Your task to perform on an android device: turn on data saver in the chrome app Image 0: 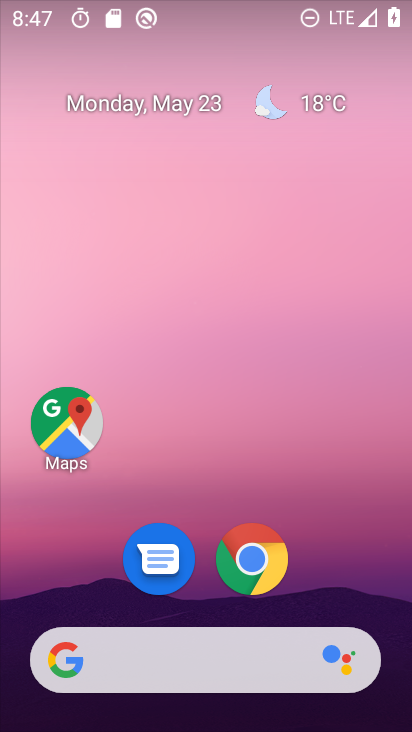
Step 0: drag from (394, 621) to (196, 16)
Your task to perform on an android device: turn on data saver in the chrome app Image 1: 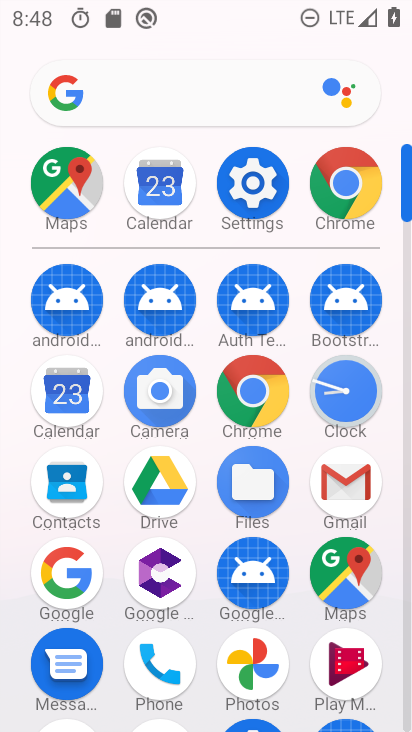
Step 1: click (243, 392)
Your task to perform on an android device: turn on data saver in the chrome app Image 2: 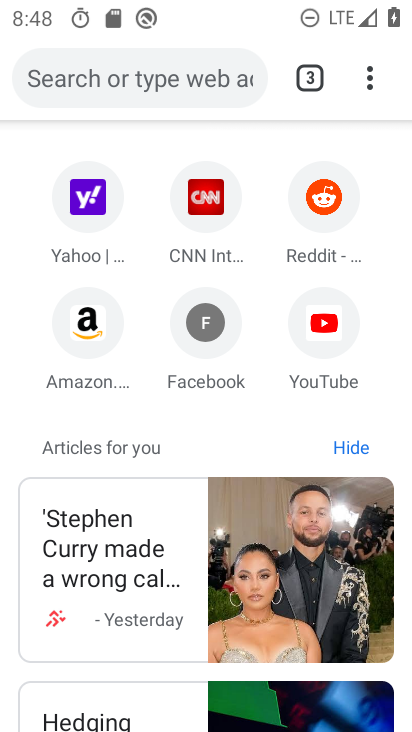
Step 2: click (370, 72)
Your task to perform on an android device: turn on data saver in the chrome app Image 3: 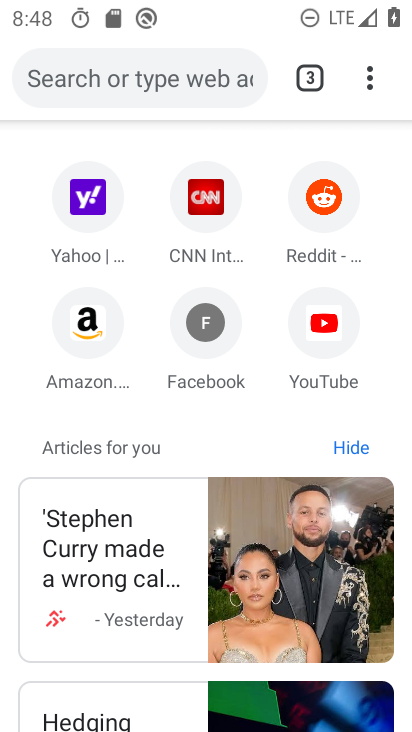
Step 3: click (370, 72)
Your task to perform on an android device: turn on data saver in the chrome app Image 4: 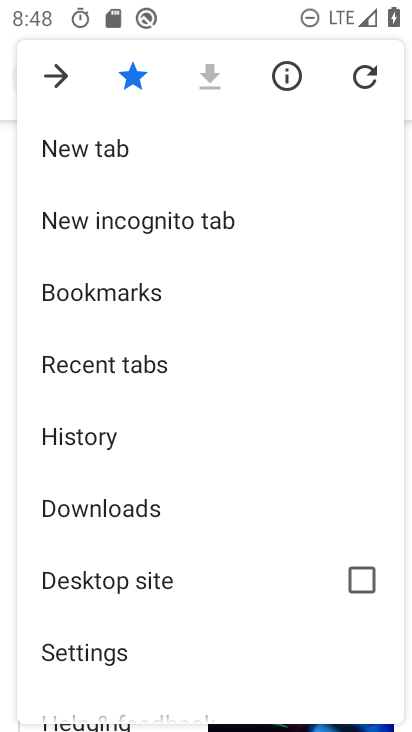
Step 4: drag from (146, 636) to (186, 282)
Your task to perform on an android device: turn on data saver in the chrome app Image 5: 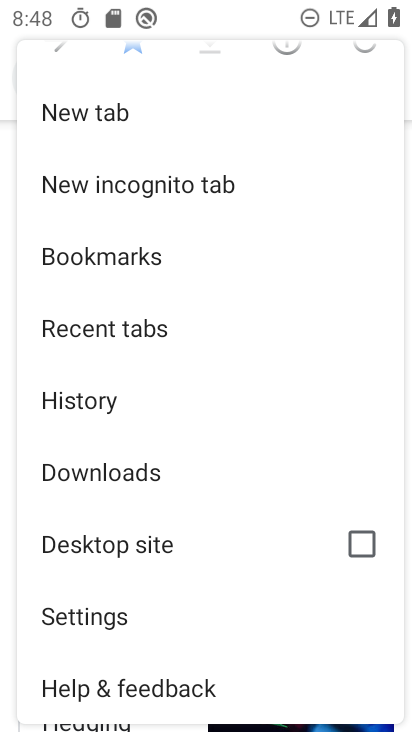
Step 5: click (94, 624)
Your task to perform on an android device: turn on data saver in the chrome app Image 6: 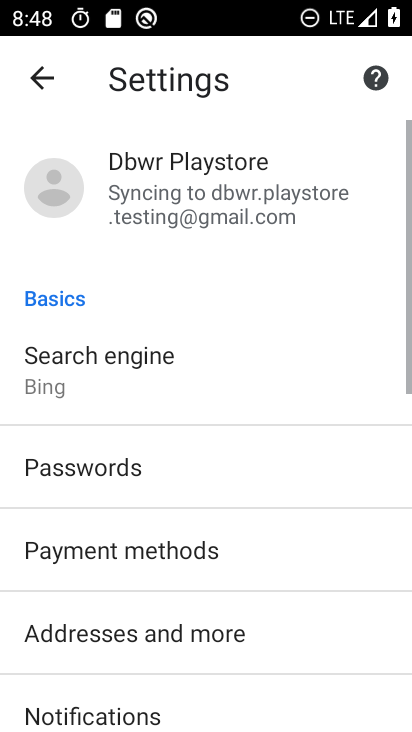
Step 6: drag from (94, 624) to (197, 221)
Your task to perform on an android device: turn on data saver in the chrome app Image 7: 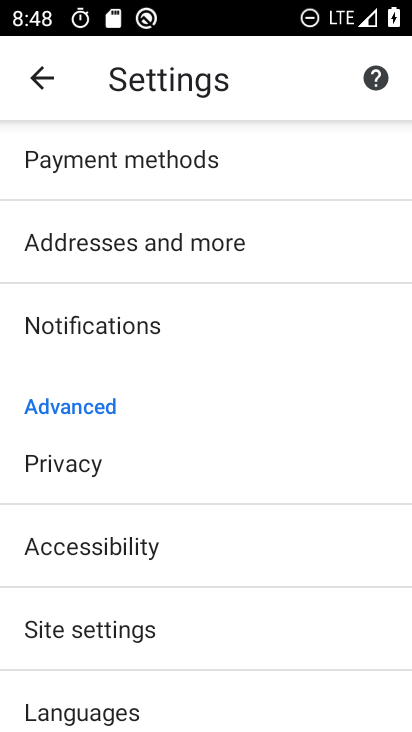
Step 7: drag from (165, 654) to (203, 201)
Your task to perform on an android device: turn on data saver in the chrome app Image 8: 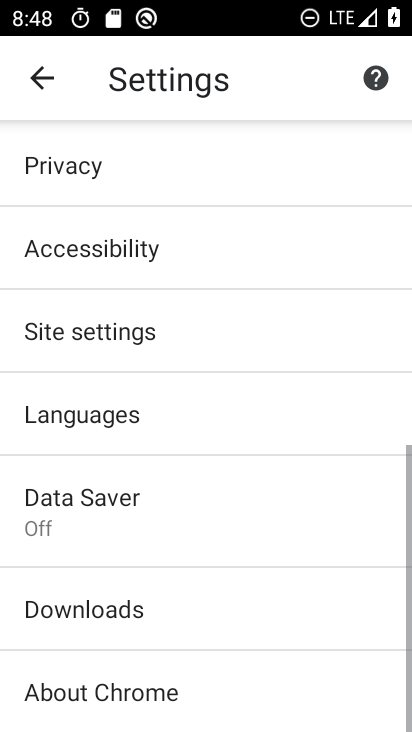
Step 8: click (142, 508)
Your task to perform on an android device: turn on data saver in the chrome app Image 9: 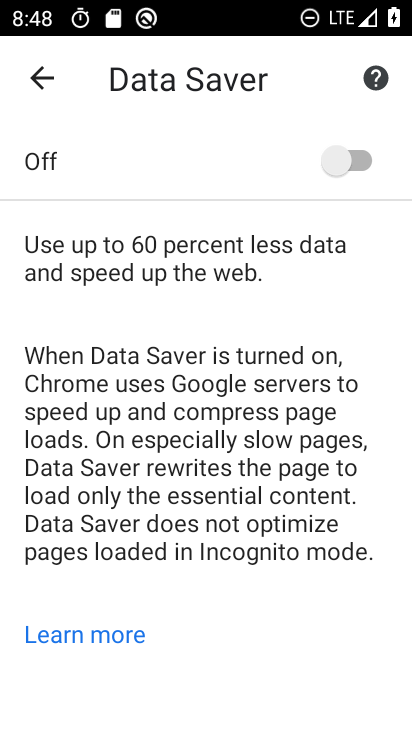
Step 9: click (347, 150)
Your task to perform on an android device: turn on data saver in the chrome app Image 10: 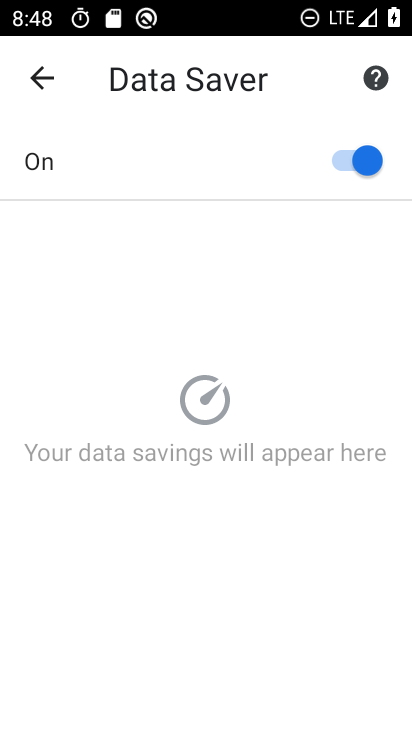
Step 10: task complete